Your task to perform on an android device: What's on my calendar tomorrow? Image 0: 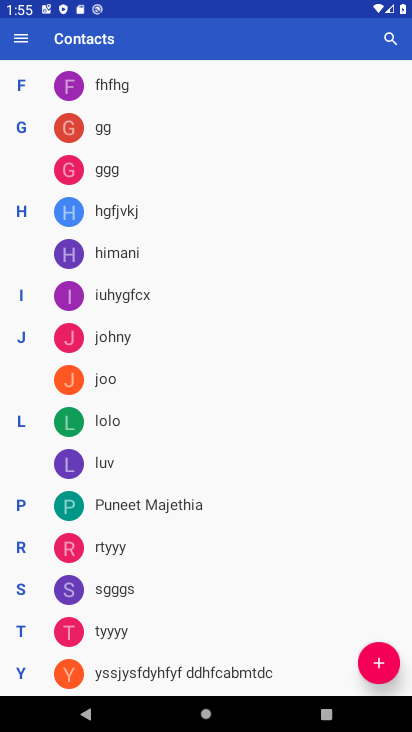
Step 0: press home button
Your task to perform on an android device: What's on my calendar tomorrow? Image 1: 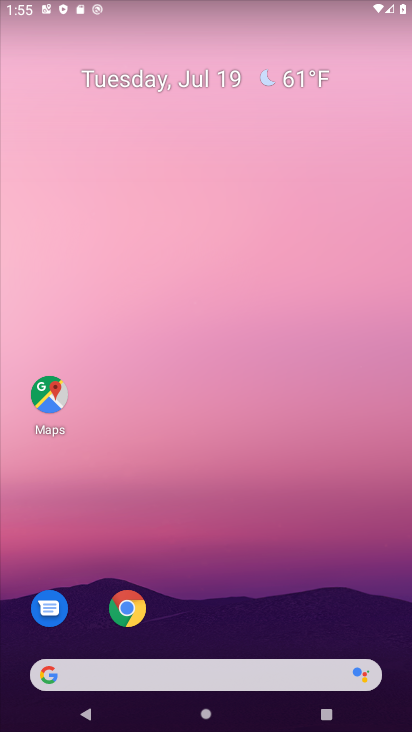
Step 1: drag from (257, 629) to (283, 0)
Your task to perform on an android device: What's on my calendar tomorrow? Image 2: 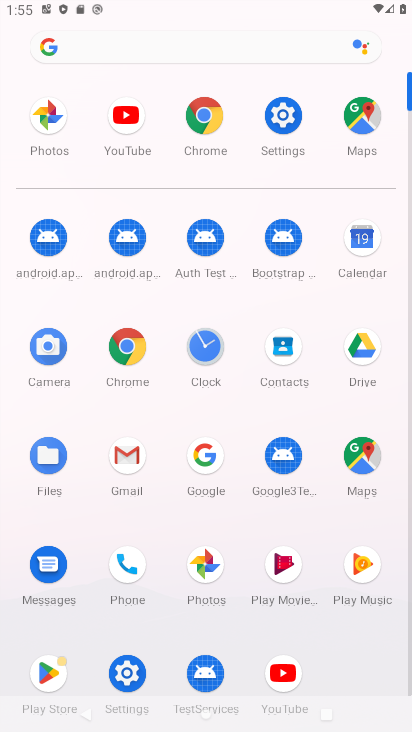
Step 2: click (365, 247)
Your task to perform on an android device: What's on my calendar tomorrow? Image 3: 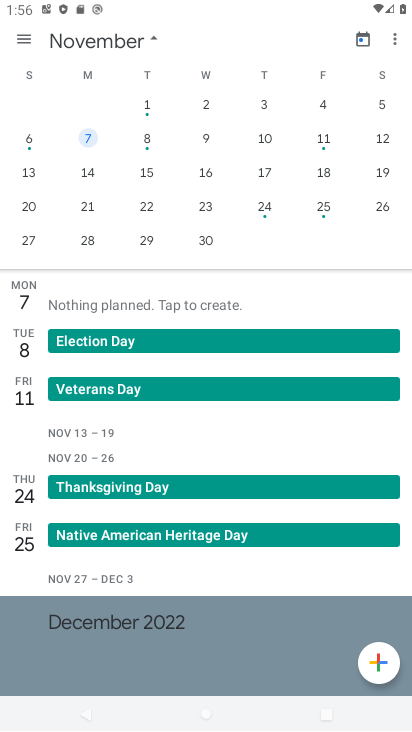
Step 3: click (141, 138)
Your task to perform on an android device: What's on my calendar tomorrow? Image 4: 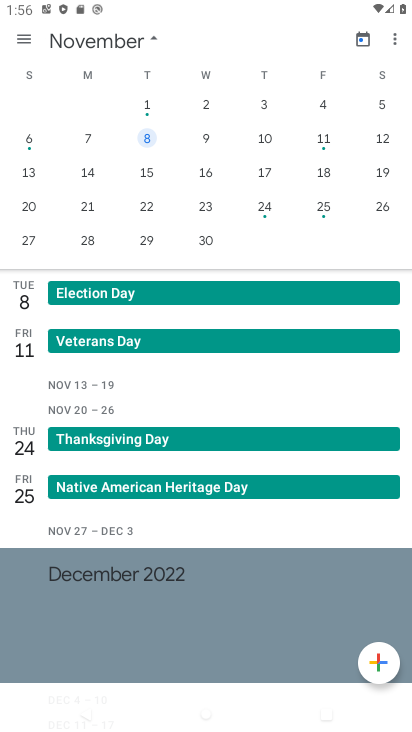
Step 4: task complete